Your task to perform on an android device: Open Maps and search for coffee Image 0: 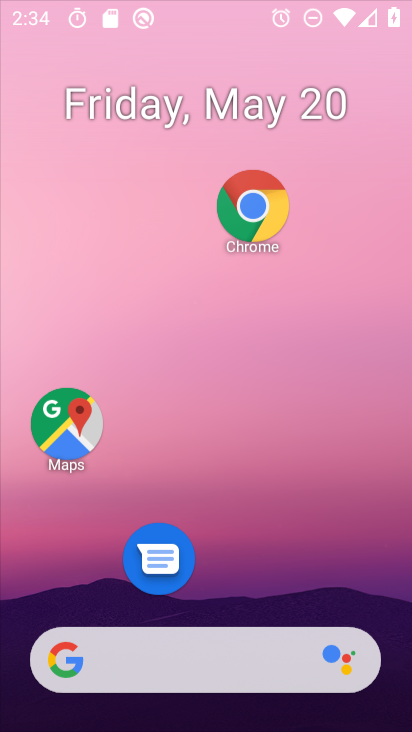
Step 0: click (177, 68)
Your task to perform on an android device: Open Maps and search for coffee Image 1: 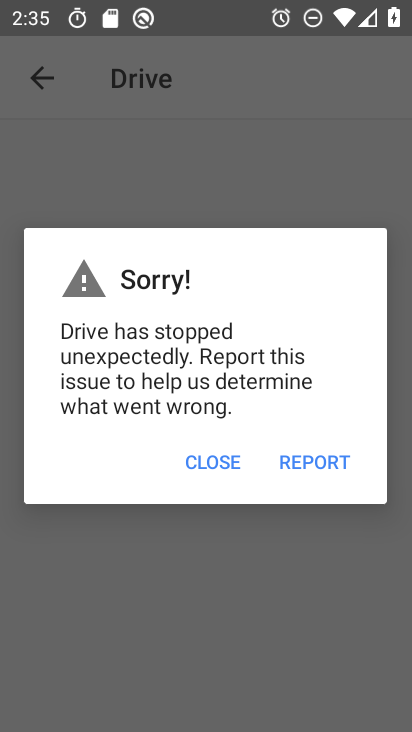
Step 1: press home button
Your task to perform on an android device: Open Maps and search for coffee Image 2: 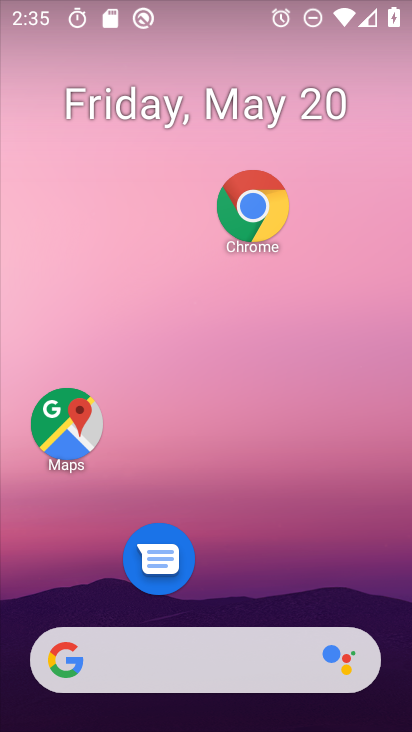
Step 2: drag from (269, 627) to (215, 141)
Your task to perform on an android device: Open Maps and search for coffee Image 3: 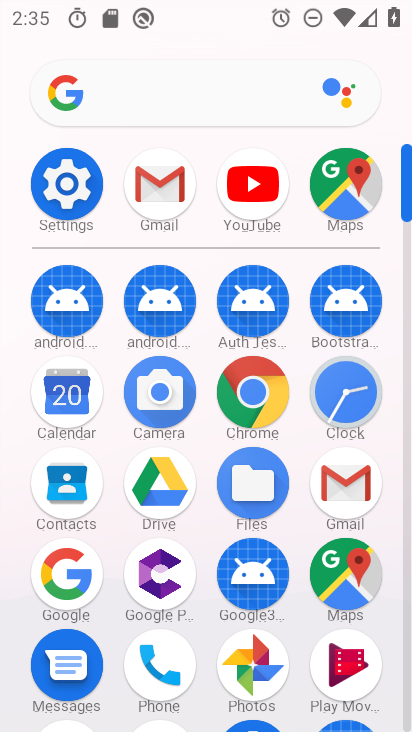
Step 3: click (332, 576)
Your task to perform on an android device: Open Maps and search for coffee Image 4: 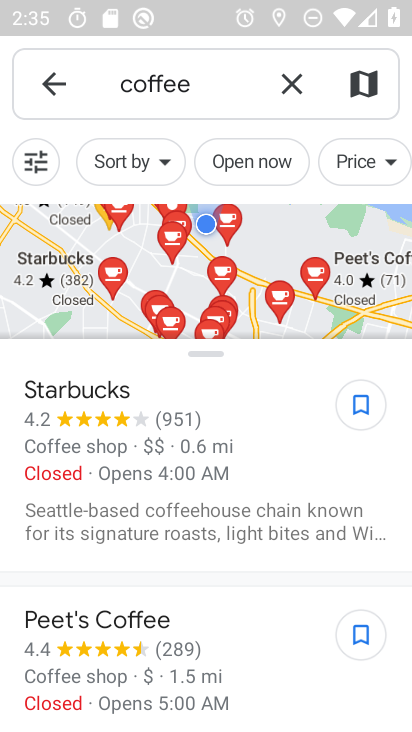
Step 4: task complete